Your task to perform on an android device: change the clock display to analog Image 0: 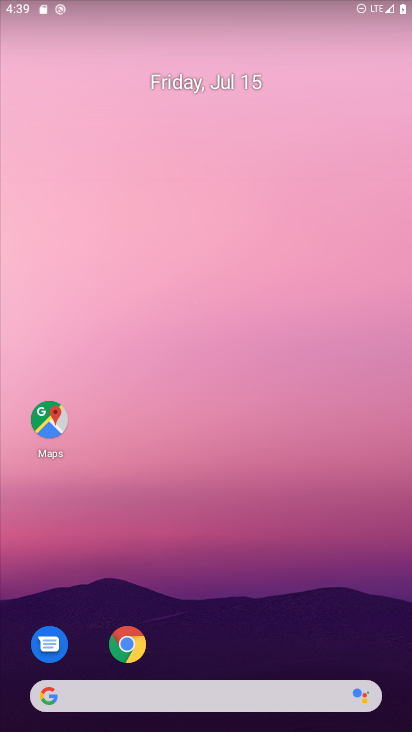
Step 0: drag from (205, 635) to (158, 254)
Your task to perform on an android device: change the clock display to analog Image 1: 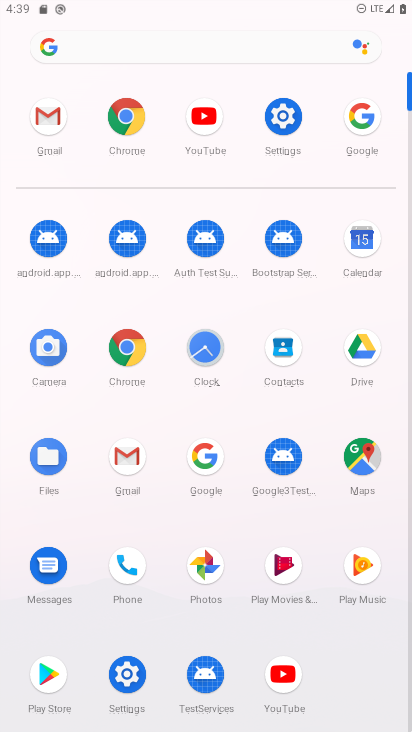
Step 1: click (209, 338)
Your task to perform on an android device: change the clock display to analog Image 2: 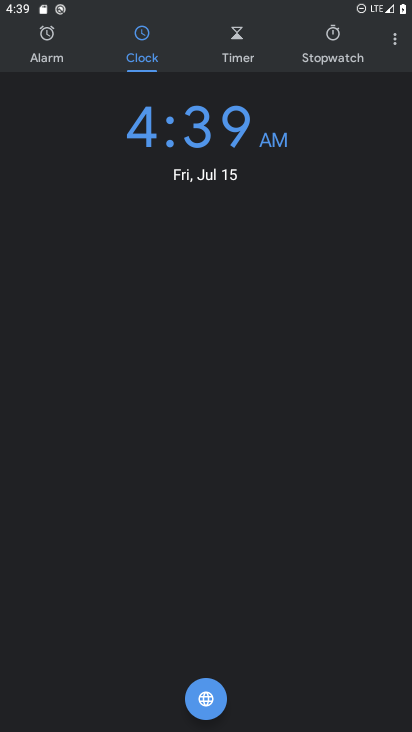
Step 2: click (393, 35)
Your task to perform on an android device: change the clock display to analog Image 3: 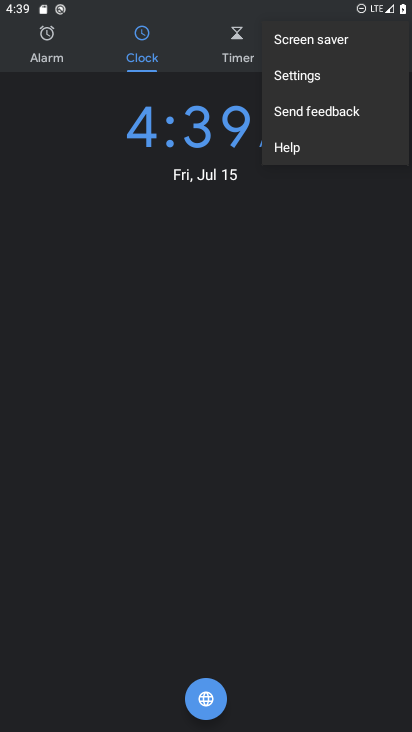
Step 3: click (313, 70)
Your task to perform on an android device: change the clock display to analog Image 4: 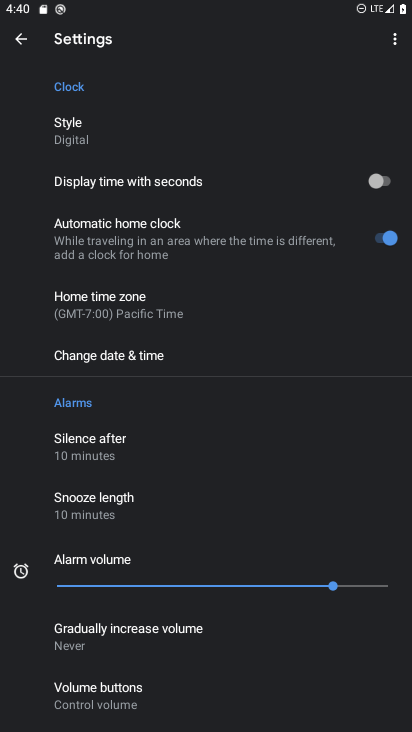
Step 4: click (74, 139)
Your task to perform on an android device: change the clock display to analog Image 5: 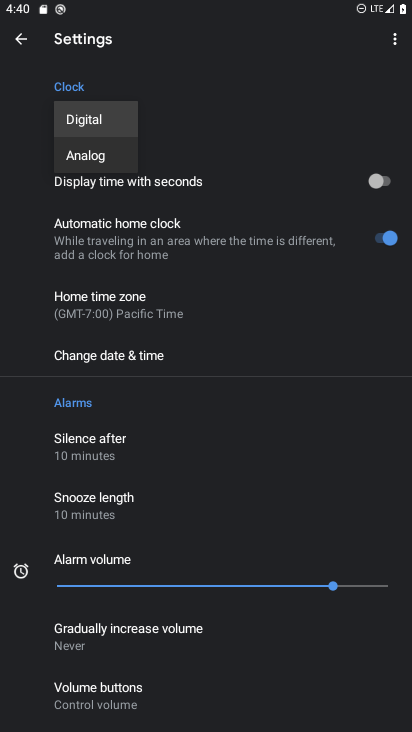
Step 5: click (90, 158)
Your task to perform on an android device: change the clock display to analog Image 6: 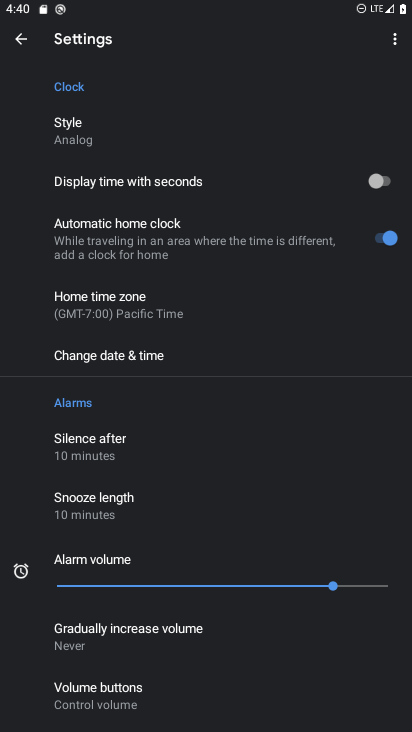
Step 6: task complete